Your task to perform on an android device: turn on sleep mode Image 0: 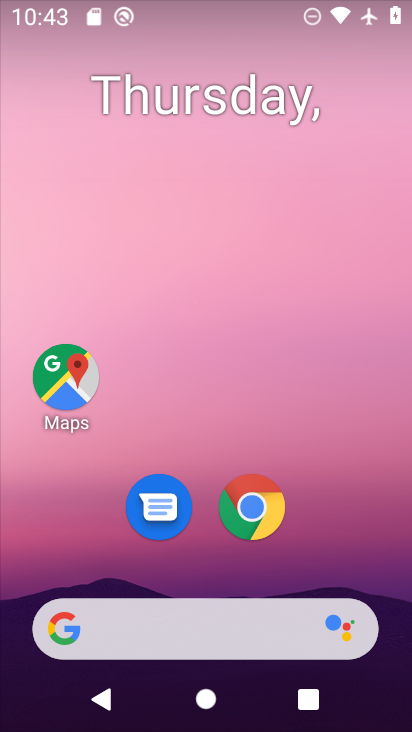
Step 0: drag from (335, 538) to (286, 2)
Your task to perform on an android device: turn on sleep mode Image 1: 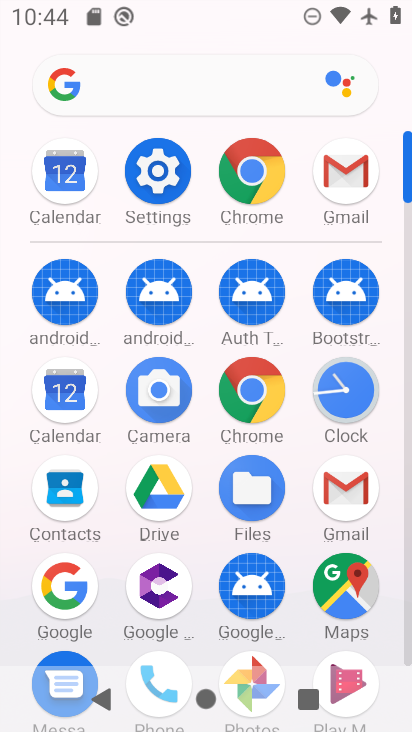
Step 1: drag from (5, 553) to (16, 269)
Your task to perform on an android device: turn on sleep mode Image 2: 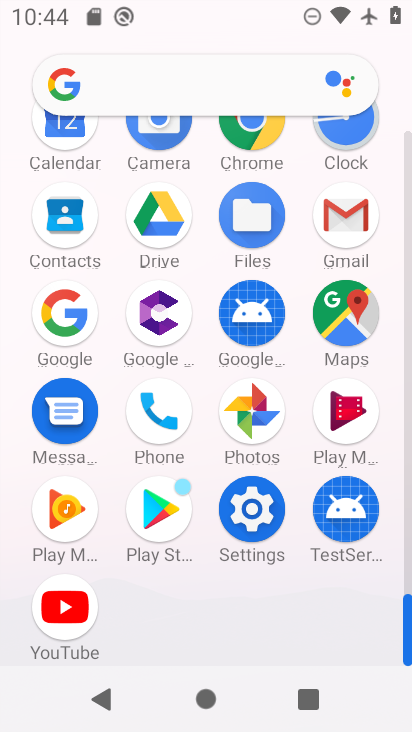
Step 2: click (252, 505)
Your task to perform on an android device: turn on sleep mode Image 3: 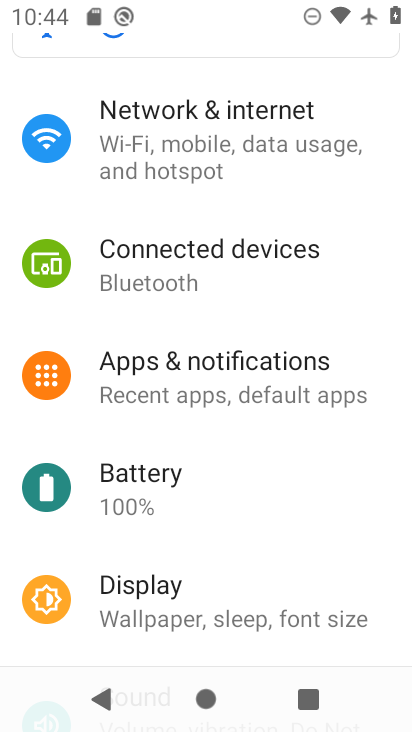
Step 3: drag from (292, 177) to (266, 531)
Your task to perform on an android device: turn on sleep mode Image 4: 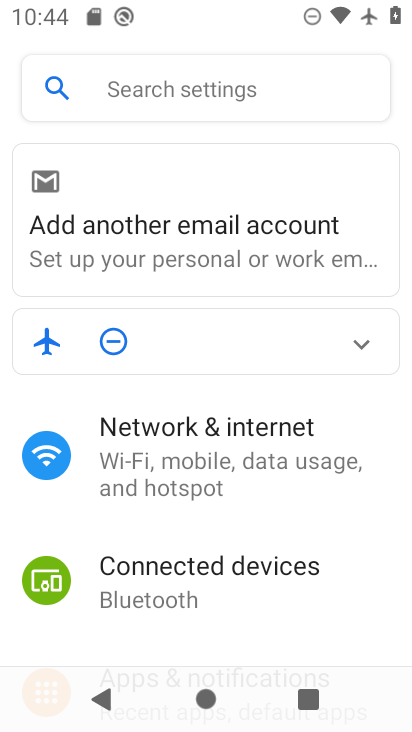
Step 4: drag from (284, 524) to (300, 162)
Your task to perform on an android device: turn on sleep mode Image 5: 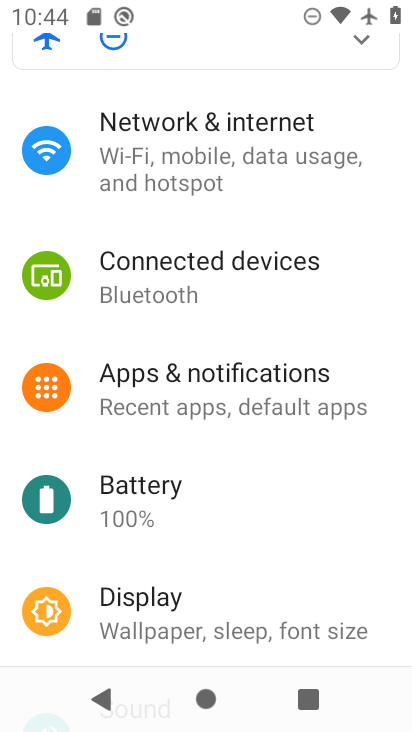
Step 5: drag from (280, 203) to (305, 369)
Your task to perform on an android device: turn on sleep mode Image 6: 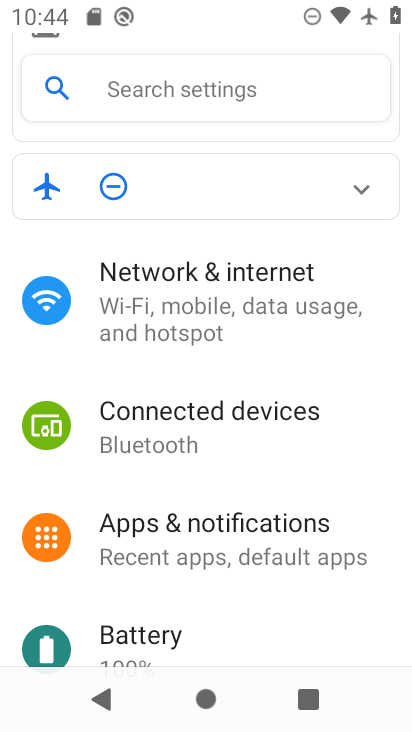
Step 6: drag from (222, 567) to (249, 265)
Your task to perform on an android device: turn on sleep mode Image 7: 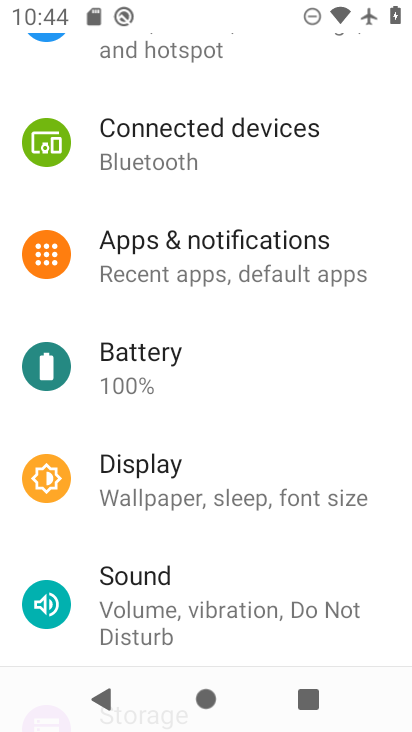
Step 7: click (198, 495)
Your task to perform on an android device: turn on sleep mode Image 8: 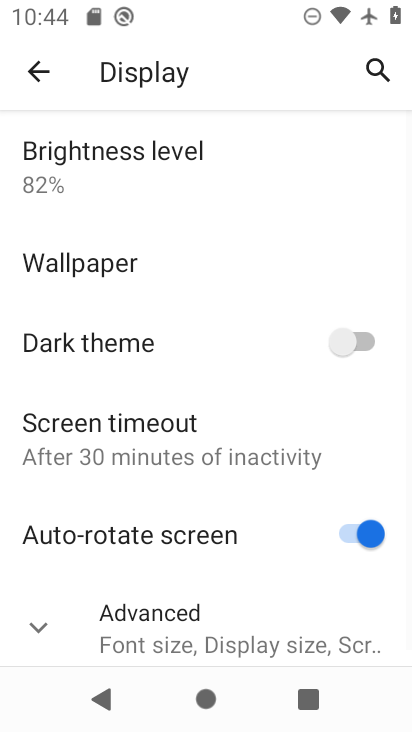
Step 8: click (55, 625)
Your task to perform on an android device: turn on sleep mode Image 9: 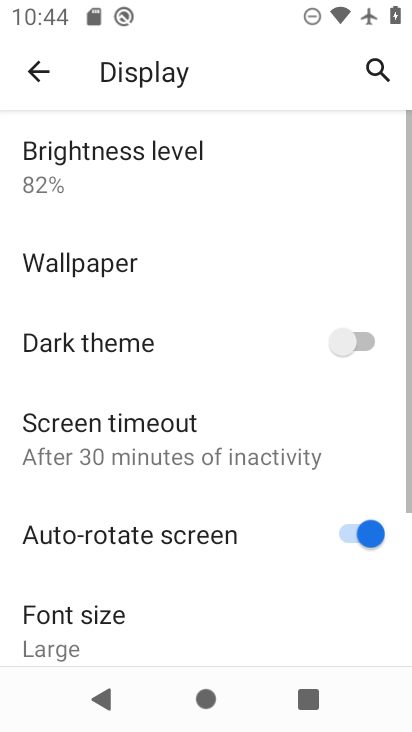
Step 9: task complete